Your task to perform on an android device: toggle translation in the chrome app Image 0: 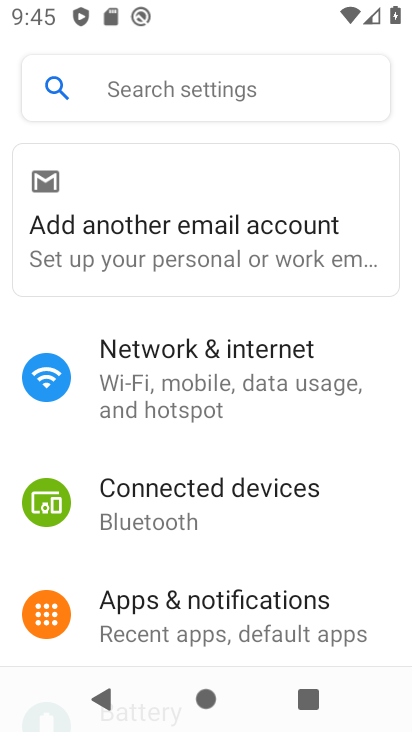
Step 0: press home button
Your task to perform on an android device: toggle translation in the chrome app Image 1: 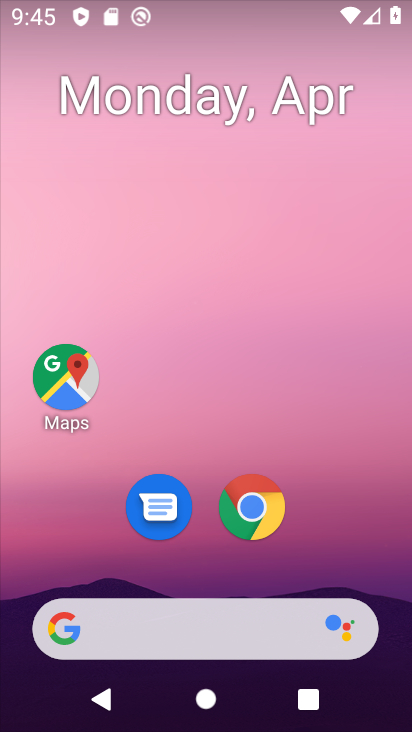
Step 1: click (257, 486)
Your task to perform on an android device: toggle translation in the chrome app Image 2: 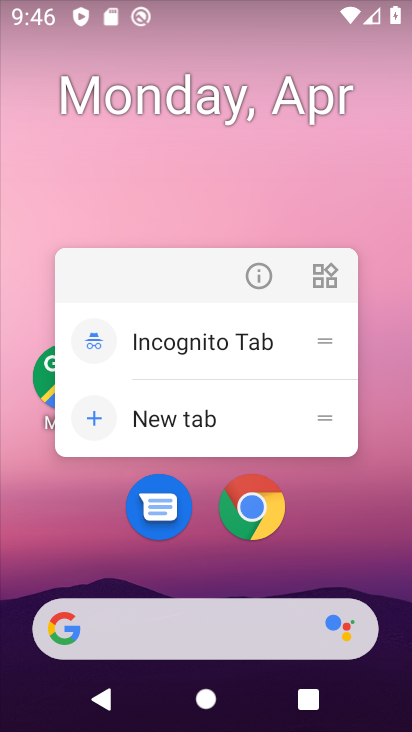
Step 2: click (267, 522)
Your task to perform on an android device: toggle translation in the chrome app Image 3: 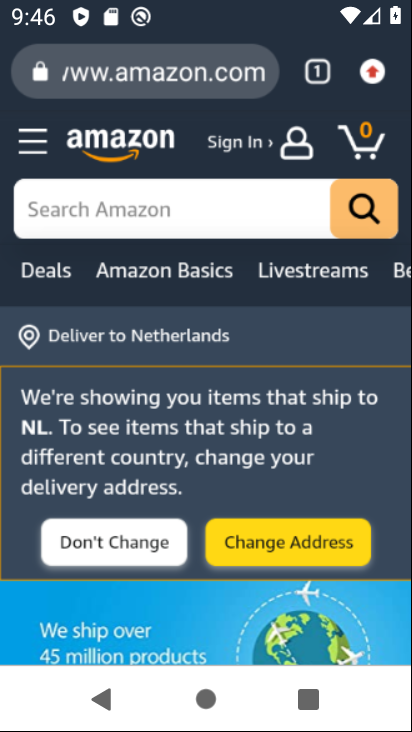
Step 3: click (257, 490)
Your task to perform on an android device: toggle translation in the chrome app Image 4: 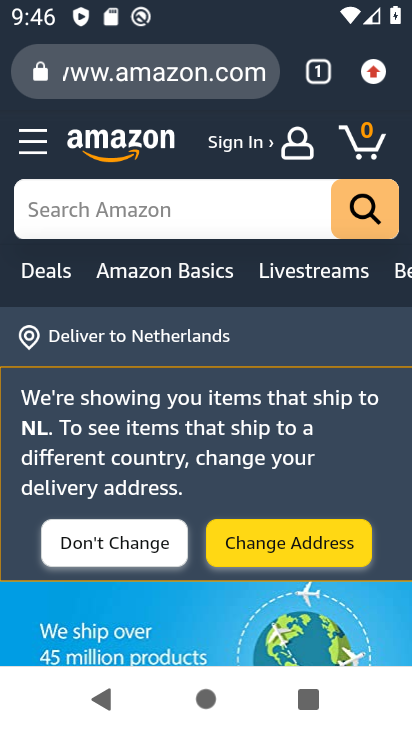
Step 4: click (377, 79)
Your task to perform on an android device: toggle translation in the chrome app Image 5: 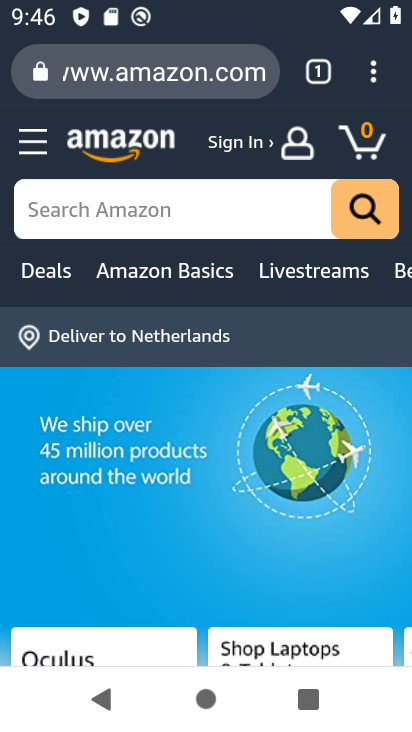
Step 5: click (373, 80)
Your task to perform on an android device: toggle translation in the chrome app Image 6: 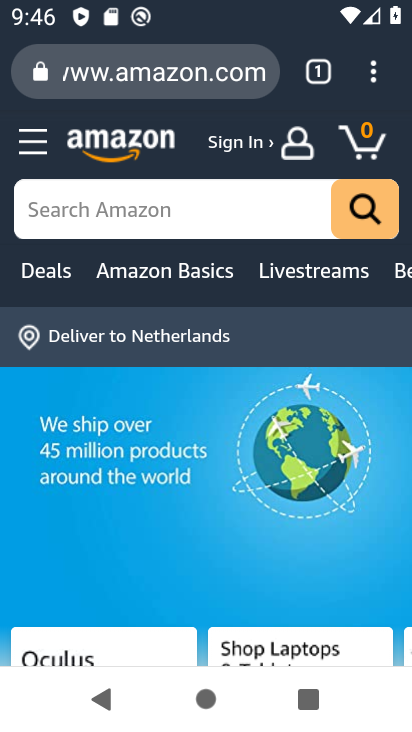
Step 6: click (372, 80)
Your task to perform on an android device: toggle translation in the chrome app Image 7: 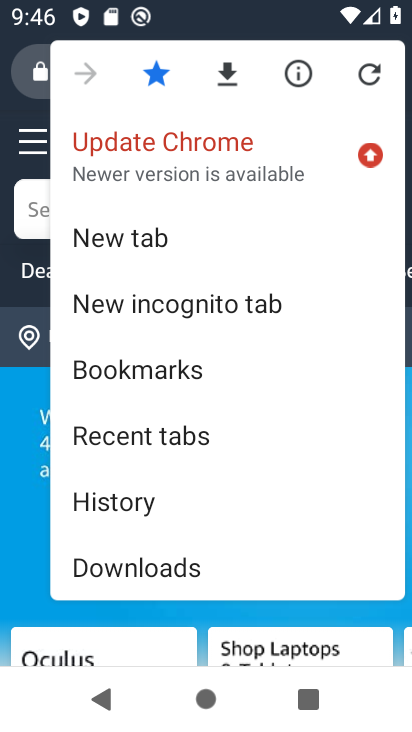
Step 7: drag from (230, 525) to (215, 238)
Your task to perform on an android device: toggle translation in the chrome app Image 8: 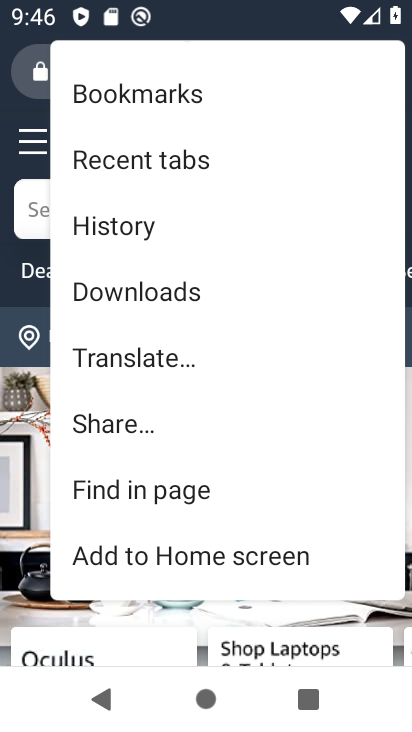
Step 8: drag from (196, 508) to (214, 279)
Your task to perform on an android device: toggle translation in the chrome app Image 9: 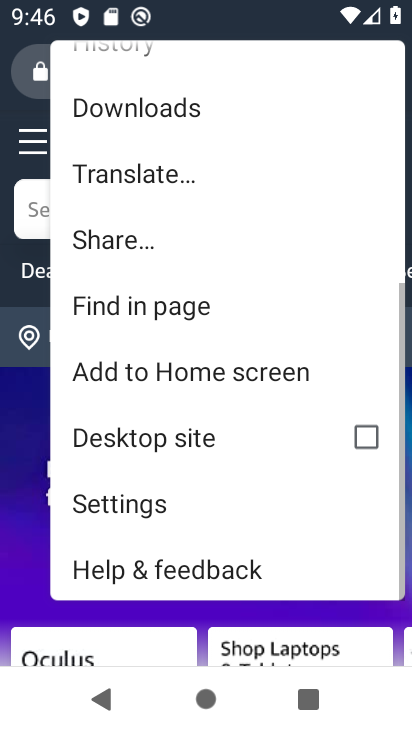
Step 9: click (134, 498)
Your task to perform on an android device: toggle translation in the chrome app Image 10: 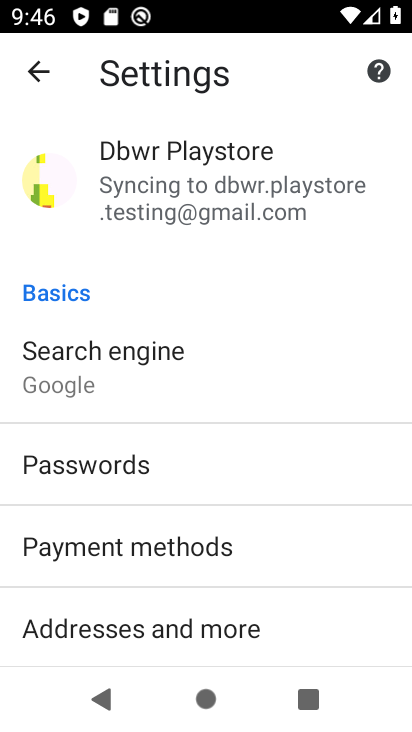
Step 10: drag from (239, 529) to (223, 211)
Your task to perform on an android device: toggle translation in the chrome app Image 11: 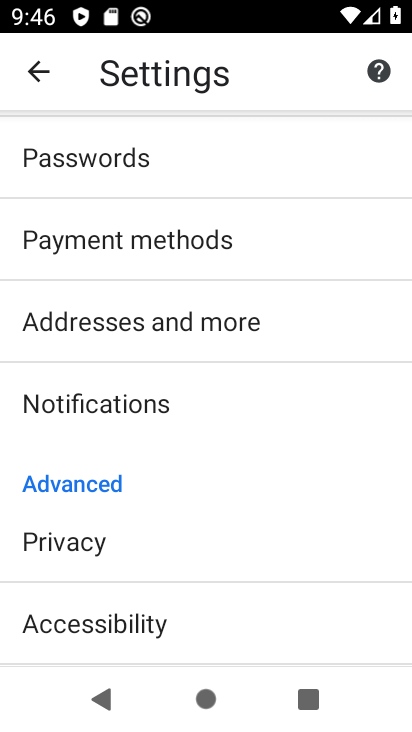
Step 11: drag from (204, 578) to (218, 314)
Your task to perform on an android device: toggle translation in the chrome app Image 12: 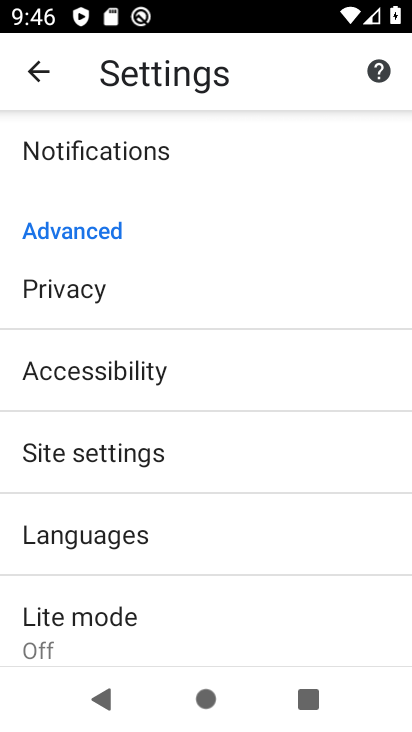
Step 12: click (170, 546)
Your task to perform on an android device: toggle translation in the chrome app Image 13: 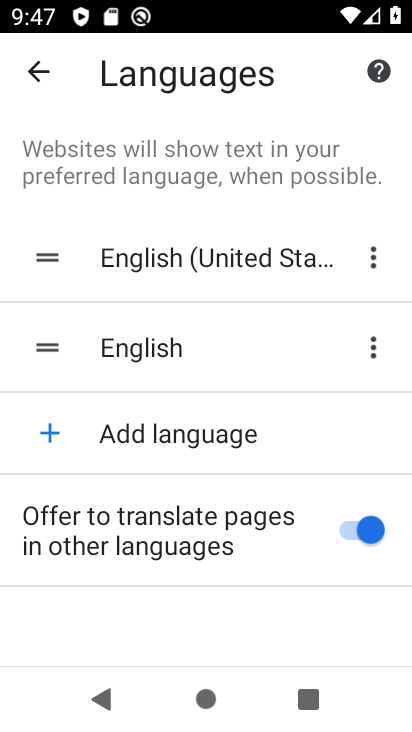
Step 13: click (361, 520)
Your task to perform on an android device: toggle translation in the chrome app Image 14: 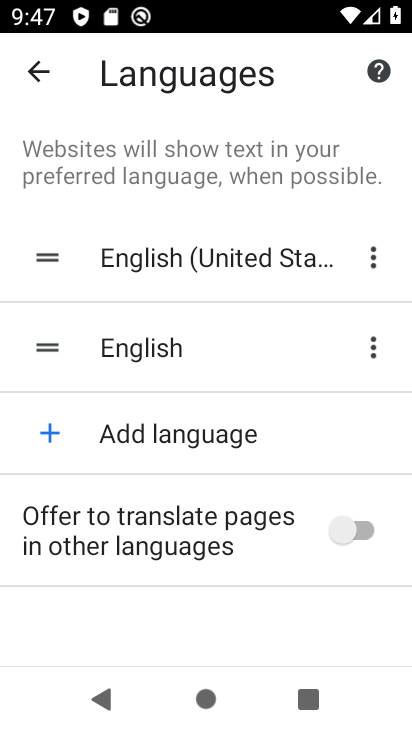
Step 14: task complete